Your task to perform on an android device: Play the last video I watched on Youtube Image 0: 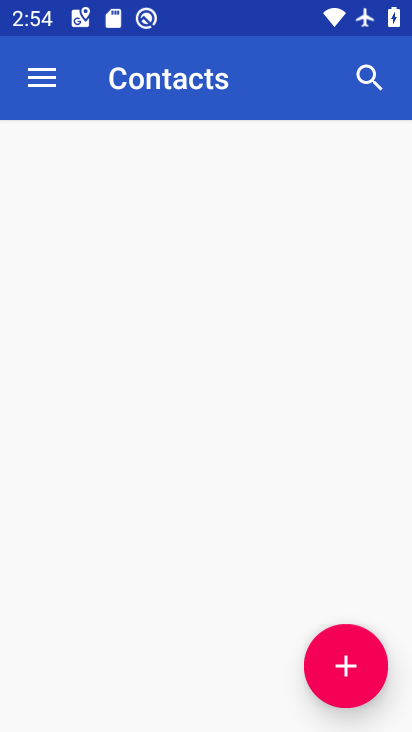
Step 0: press home button
Your task to perform on an android device: Play the last video I watched on Youtube Image 1: 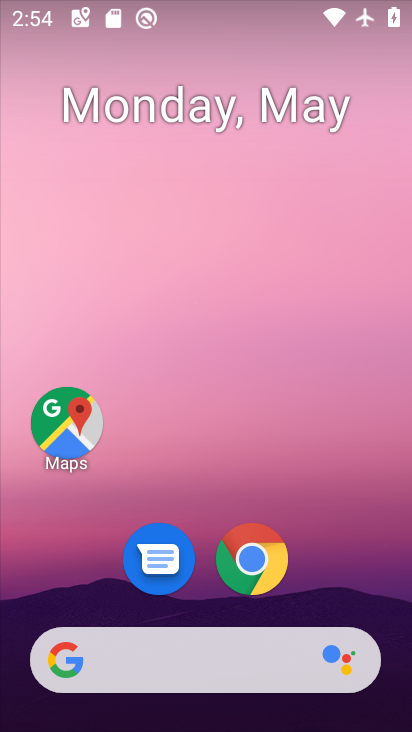
Step 1: drag from (313, 596) to (239, 218)
Your task to perform on an android device: Play the last video I watched on Youtube Image 2: 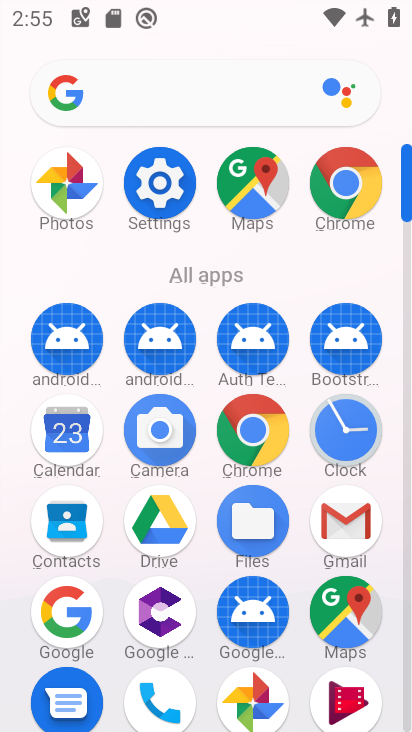
Step 2: drag from (316, 623) to (328, 273)
Your task to perform on an android device: Play the last video I watched on Youtube Image 3: 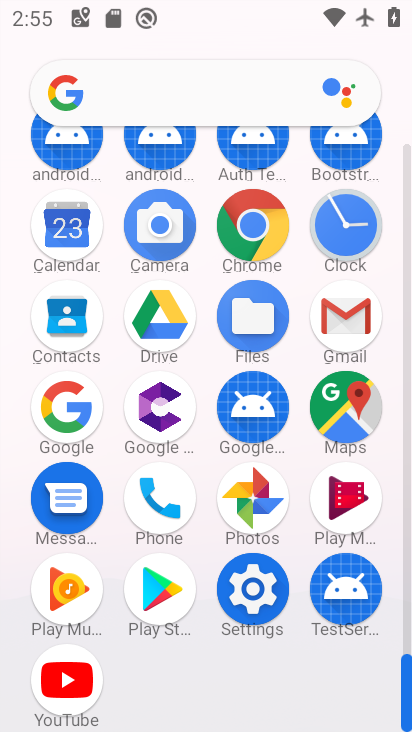
Step 3: click (65, 685)
Your task to perform on an android device: Play the last video I watched on Youtube Image 4: 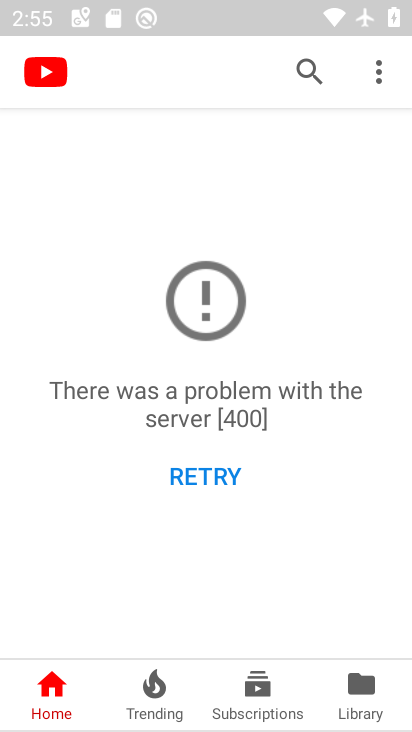
Step 4: click (369, 704)
Your task to perform on an android device: Play the last video I watched on Youtube Image 5: 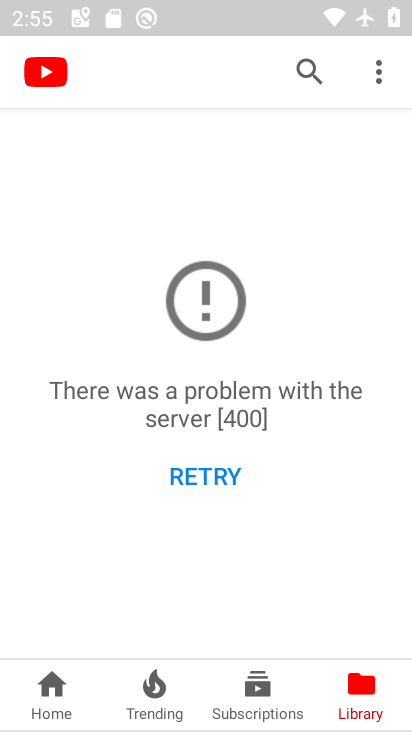
Step 5: task complete